Your task to perform on an android device: toggle notifications settings in the gmail app Image 0: 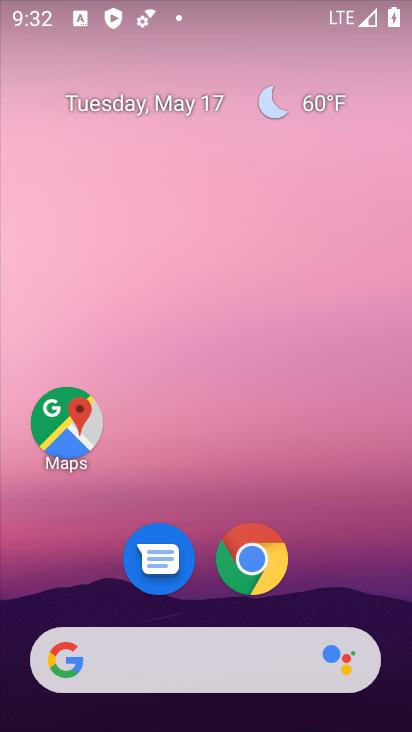
Step 0: drag from (201, 587) to (188, 252)
Your task to perform on an android device: toggle notifications settings in the gmail app Image 1: 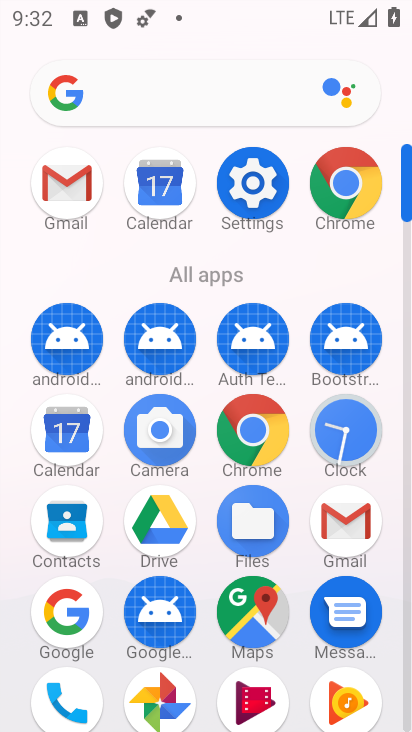
Step 1: click (79, 215)
Your task to perform on an android device: toggle notifications settings in the gmail app Image 2: 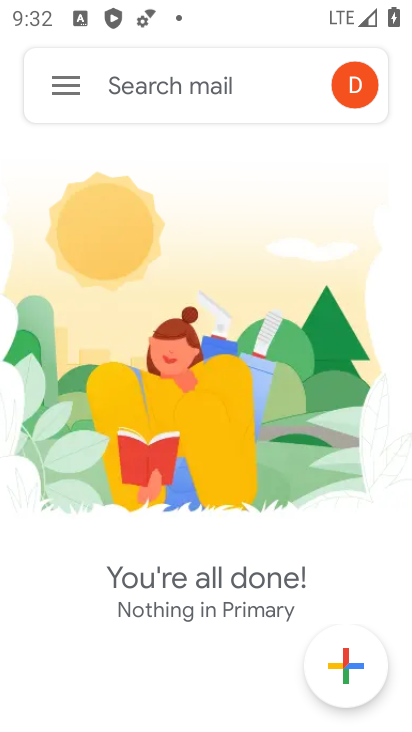
Step 2: click (61, 90)
Your task to perform on an android device: toggle notifications settings in the gmail app Image 3: 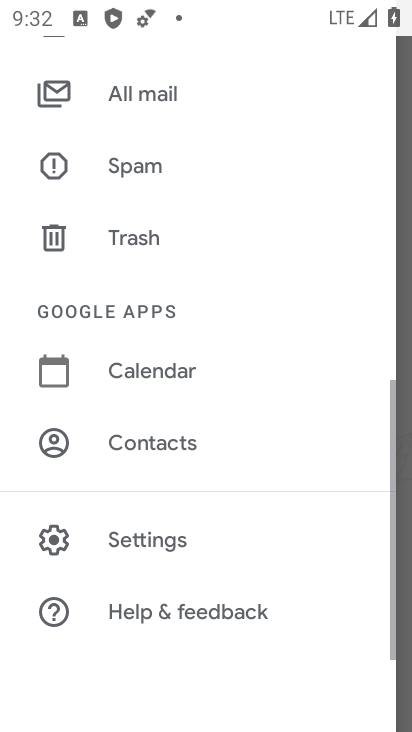
Step 3: click (114, 545)
Your task to perform on an android device: toggle notifications settings in the gmail app Image 4: 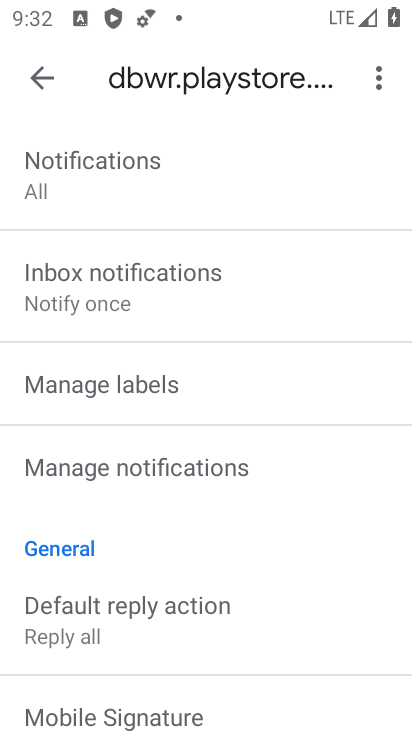
Step 4: drag from (208, 630) to (211, 468)
Your task to perform on an android device: toggle notifications settings in the gmail app Image 5: 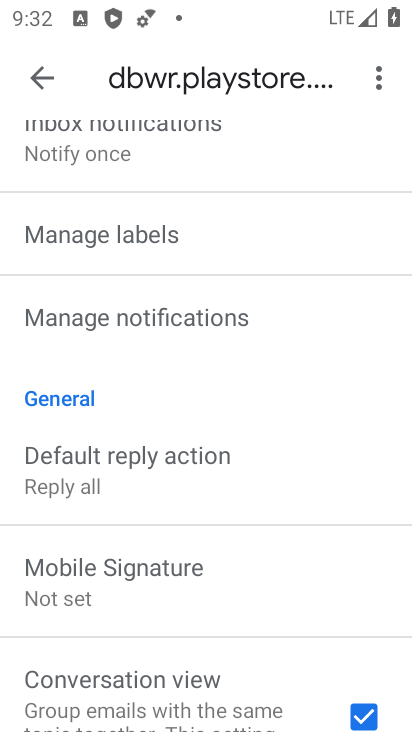
Step 5: click (161, 322)
Your task to perform on an android device: toggle notifications settings in the gmail app Image 6: 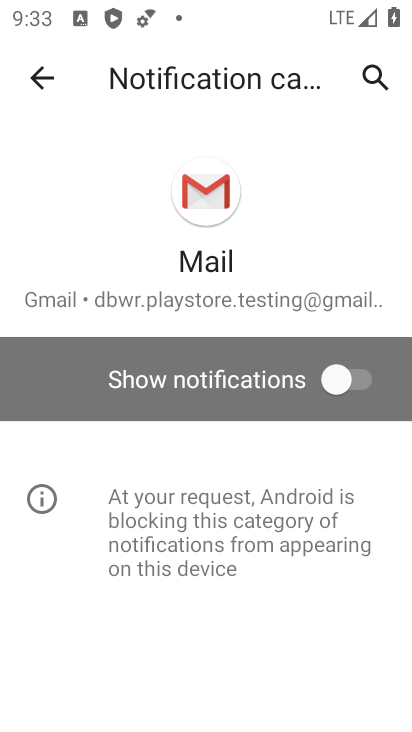
Step 6: click (349, 370)
Your task to perform on an android device: toggle notifications settings in the gmail app Image 7: 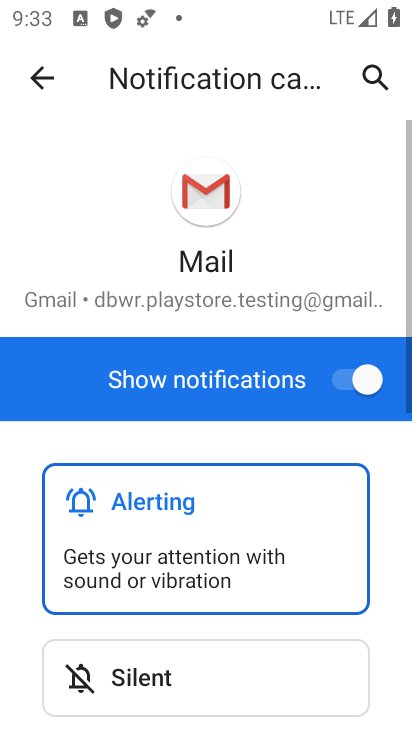
Step 7: task complete